Your task to perform on an android device: turn notification dots on Image 0: 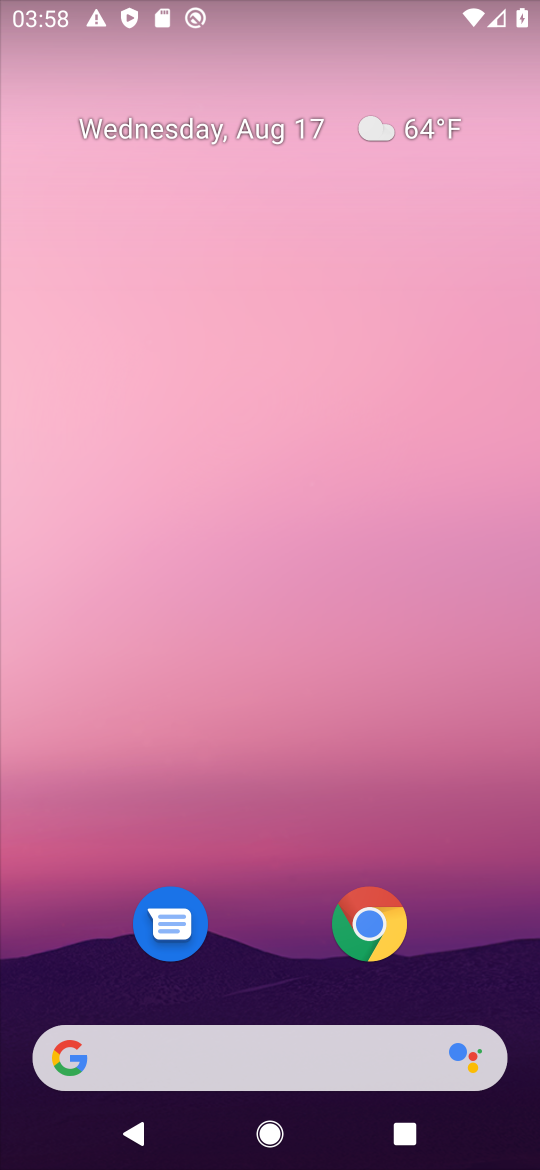
Step 0: drag from (282, 1012) to (525, 31)
Your task to perform on an android device: turn notification dots on Image 1: 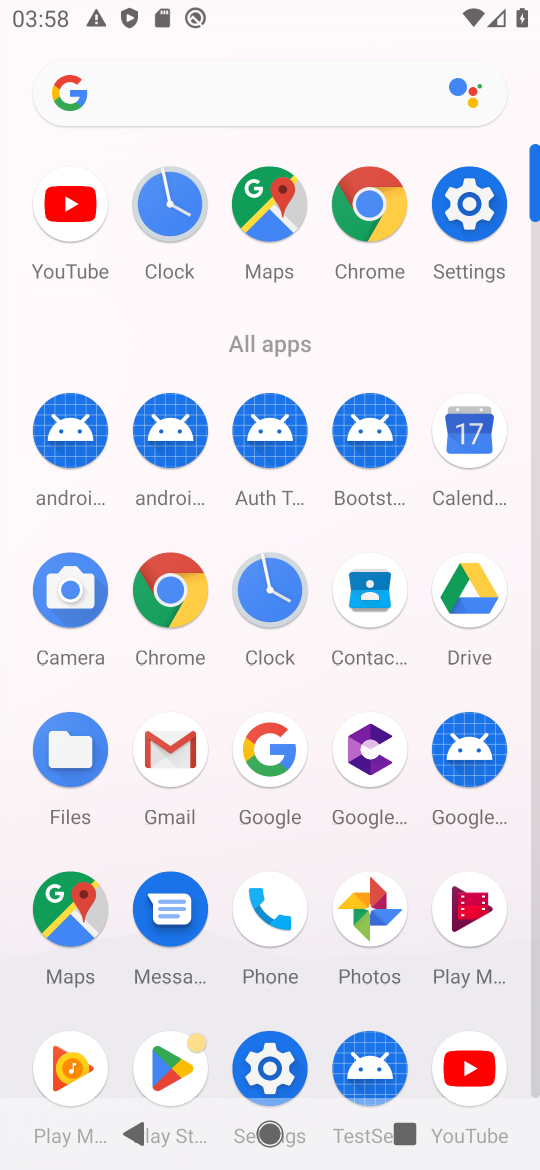
Step 1: click (278, 1040)
Your task to perform on an android device: turn notification dots on Image 2: 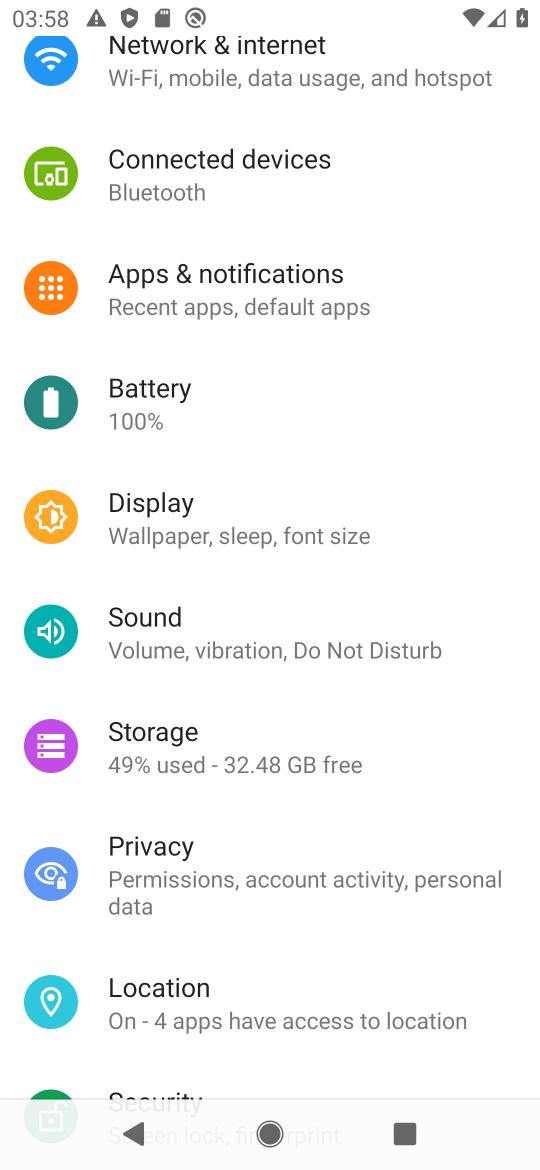
Step 2: click (262, 275)
Your task to perform on an android device: turn notification dots on Image 3: 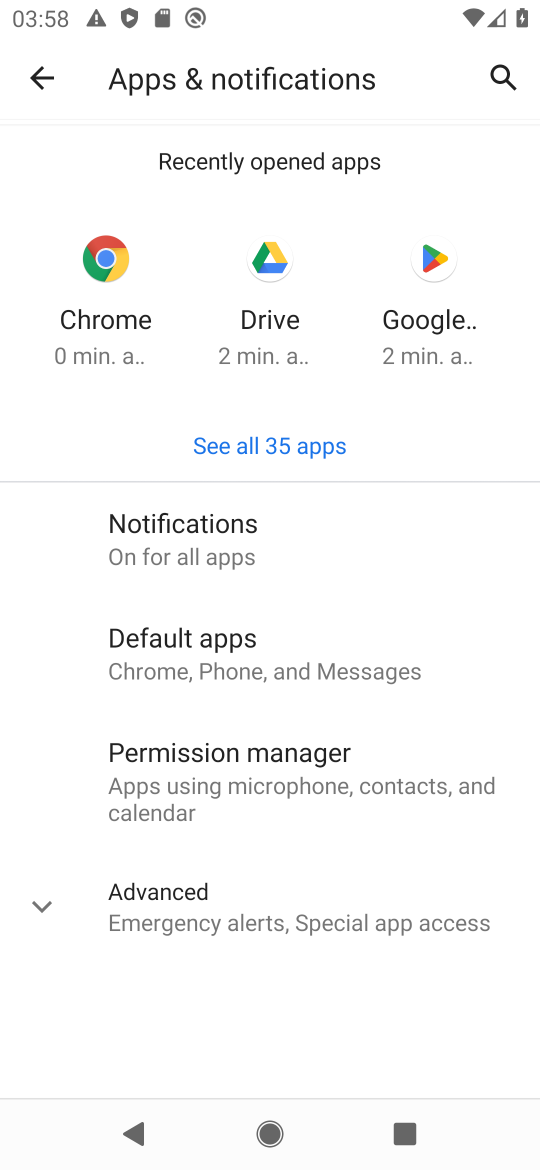
Step 3: click (180, 906)
Your task to perform on an android device: turn notification dots on Image 4: 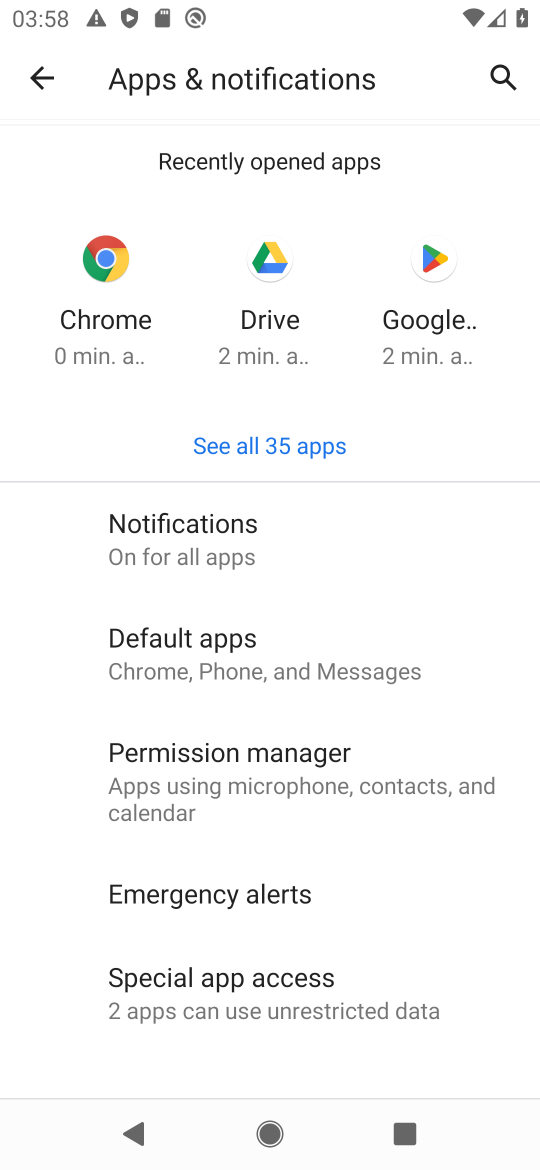
Step 4: click (168, 538)
Your task to perform on an android device: turn notification dots on Image 5: 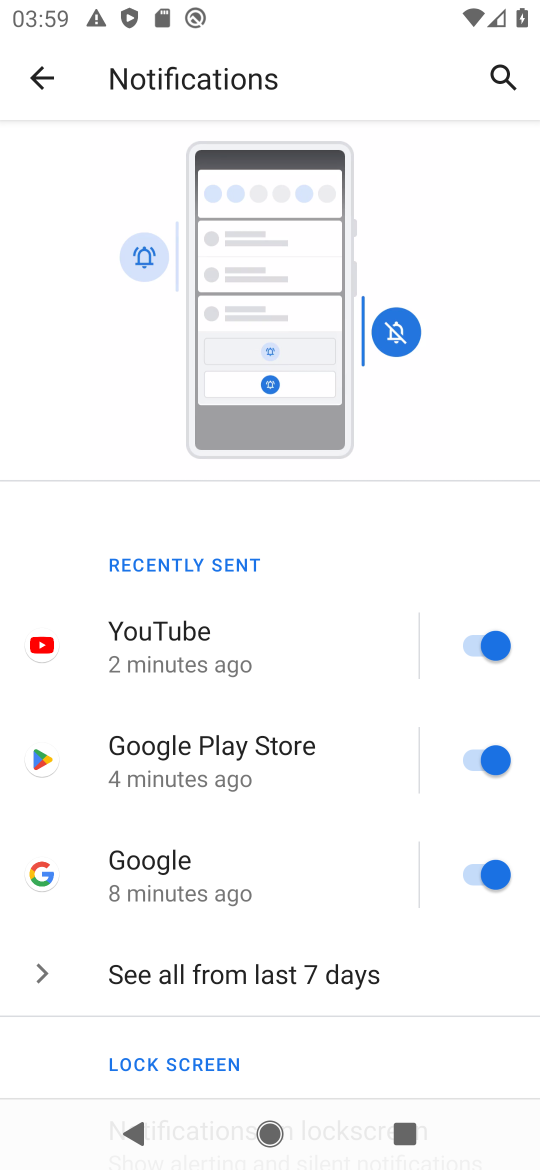
Step 5: drag from (251, 1023) to (147, 149)
Your task to perform on an android device: turn notification dots on Image 6: 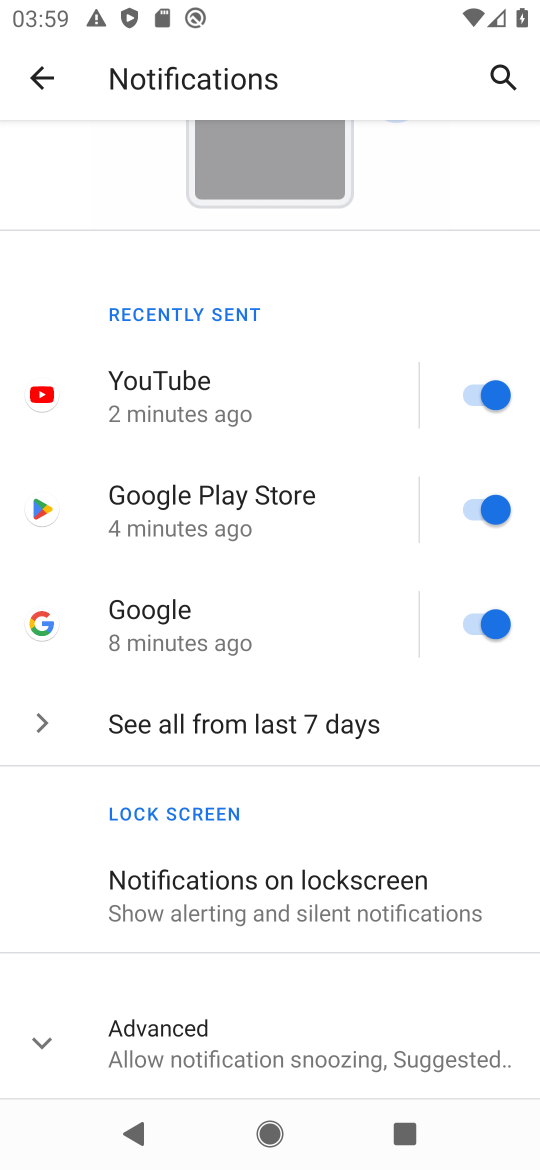
Step 6: click (172, 1019)
Your task to perform on an android device: turn notification dots on Image 7: 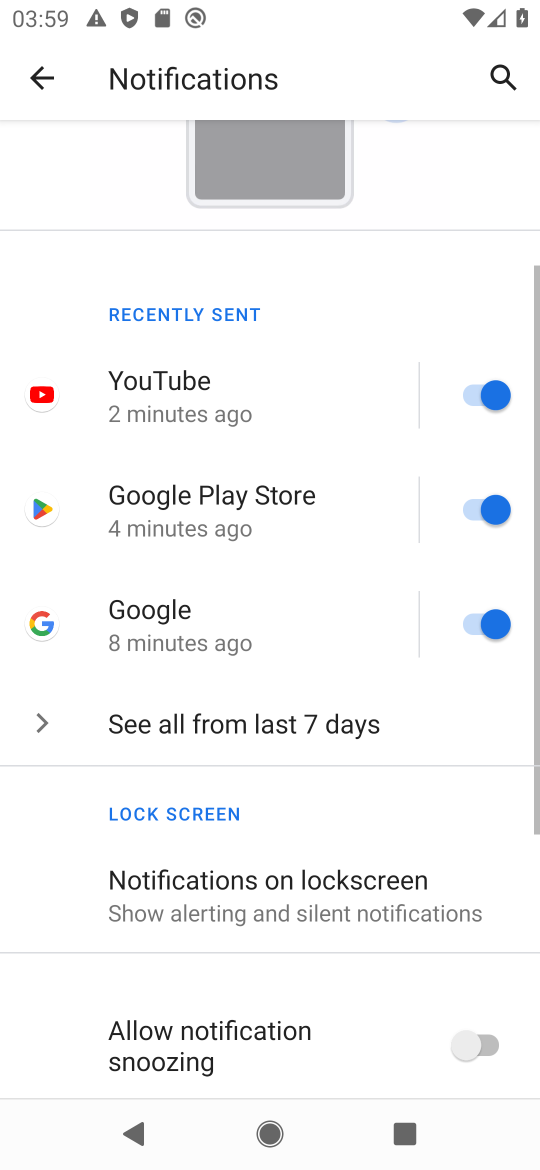
Step 7: task complete